Your task to perform on an android device: turn on the 12-hour format for clock Image 0: 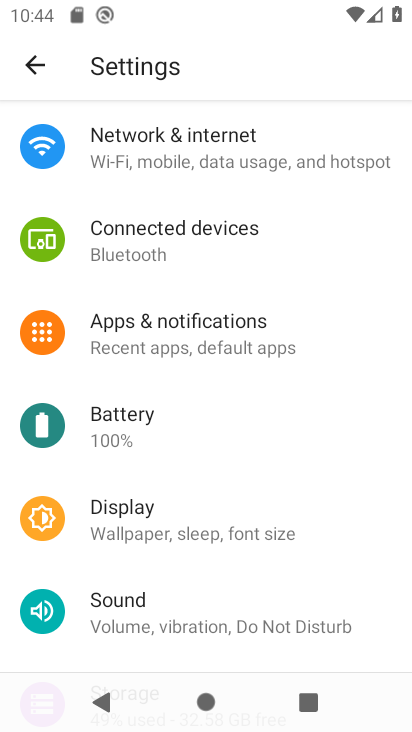
Step 0: press home button
Your task to perform on an android device: turn on the 12-hour format for clock Image 1: 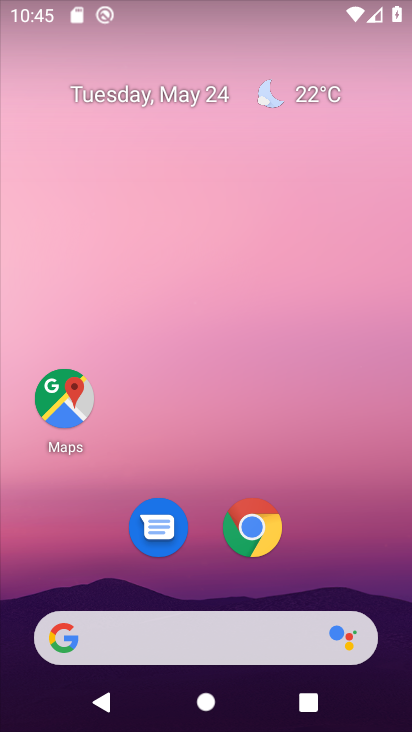
Step 1: drag from (161, 637) to (326, 25)
Your task to perform on an android device: turn on the 12-hour format for clock Image 2: 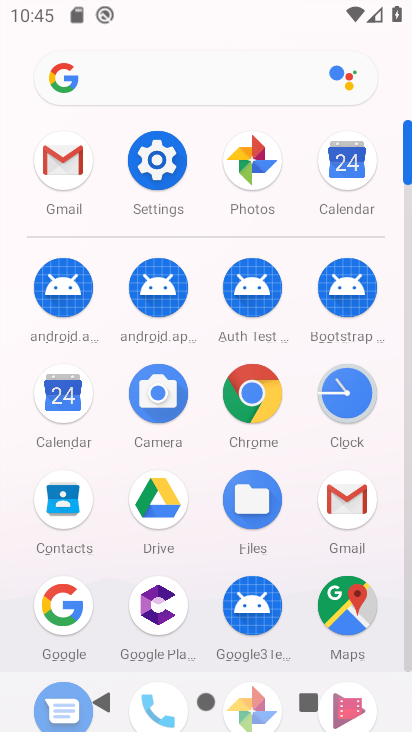
Step 2: click (342, 409)
Your task to perform on an android device: turn on the 12-hour format for clock Image 3: 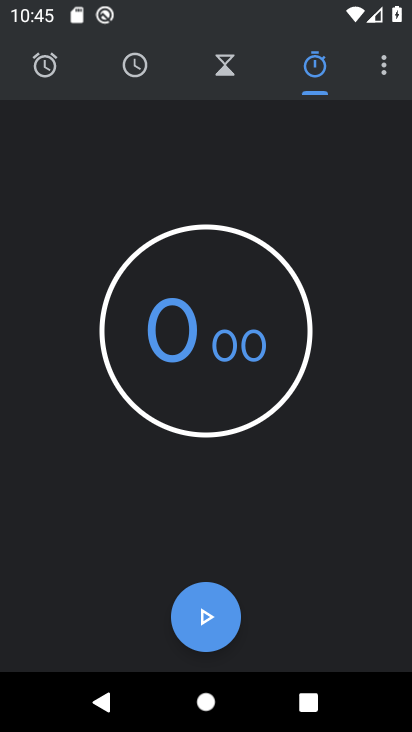
Step 3: click (384, 72)
Your task to perform on an android device: turn on the 12-hour format for clock Image 4: 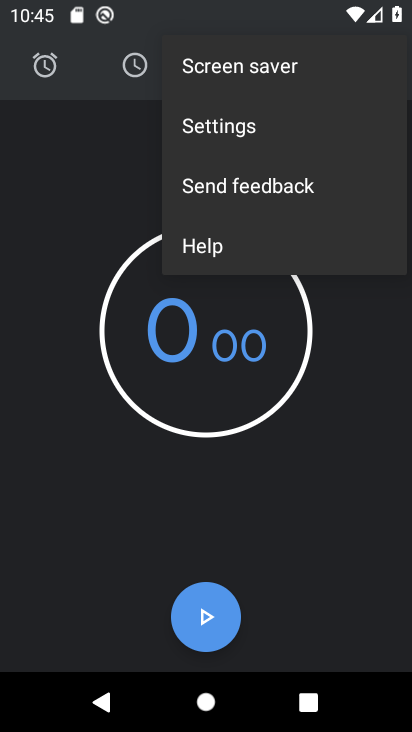
Step 4: click (271, 129)
Your task to perform on an android device: turn on the 12-hour format for clock Image 5: 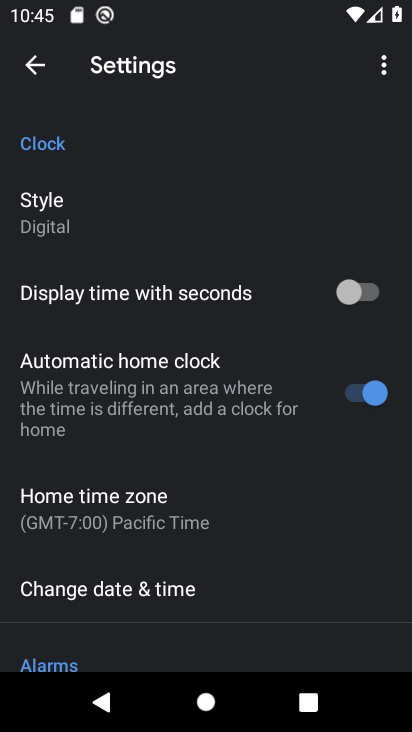
Step 5: drag from (229, 610) to (302, 228)
Your task to perform on an android device: turn on the 12-hour format for clock Image 6: 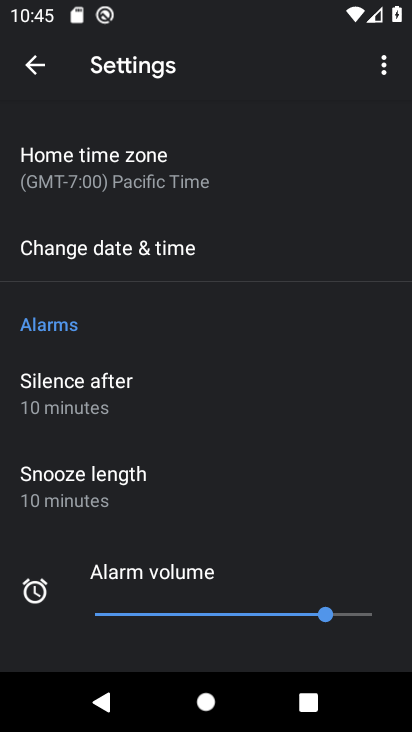
Step 6: click (166, 243)
Your task to perform on an android device: turn on the 12-hour format for clock Image 7: 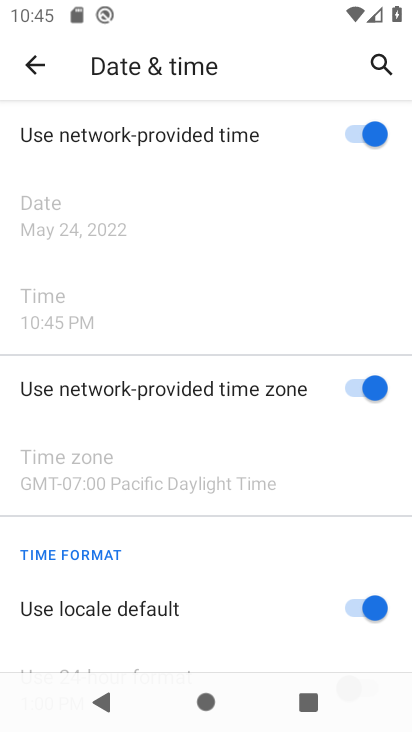
Step 7: task complete